Your task to perform on an android device: Open the stopwatch Image 0: 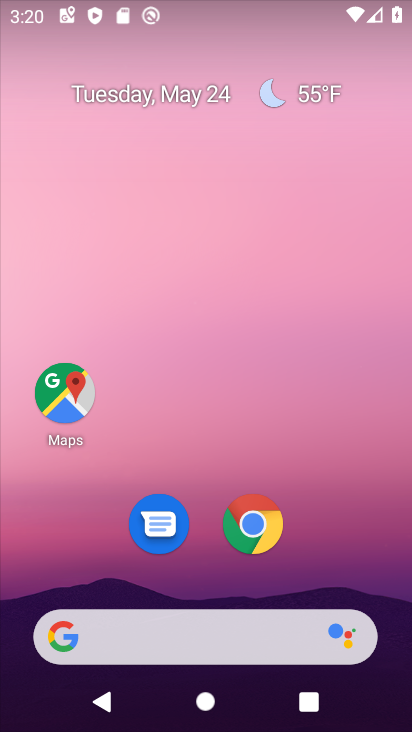
Step 0: drag from (194, 550) to (224, 72)
Your task to perform on an android device: Open the stopwatch Image 1: 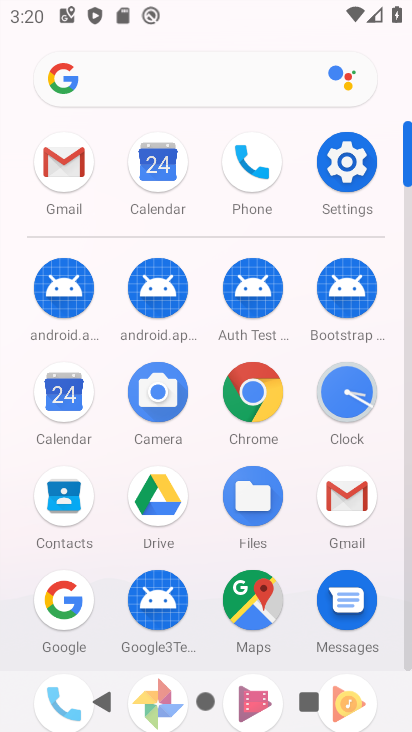
Step 1: click (343, 394)
Your task to perform on an android device: Open the stopwatch Image 2: 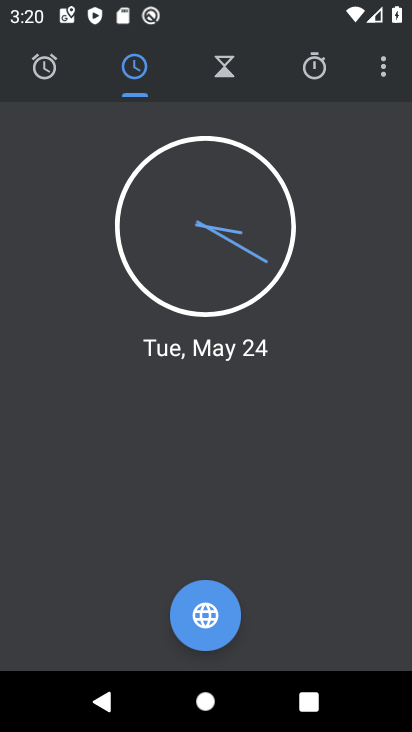
Step 2: click (323, 69)
Your task to perform on an android device: Open the stopwatch Image 3: 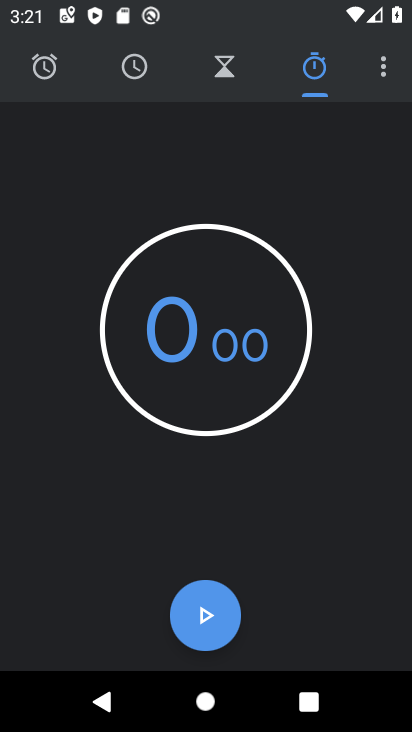
Step 3: task complete